Your task to perform on an android device: Go to Amazon Image 0: 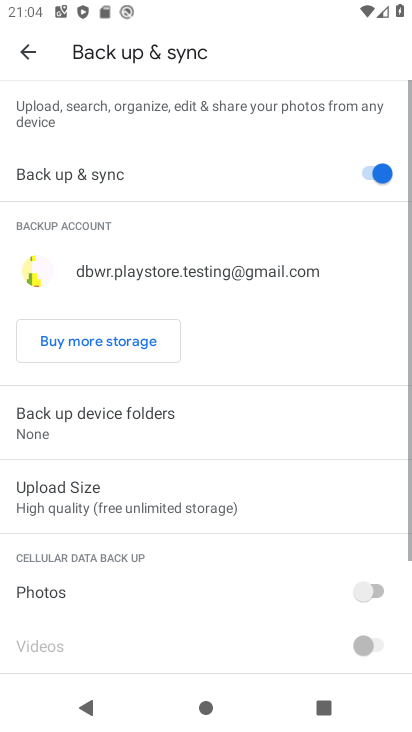
Step 0: press home button
Your task to perform on an android device: Go to Amazon Image 1: 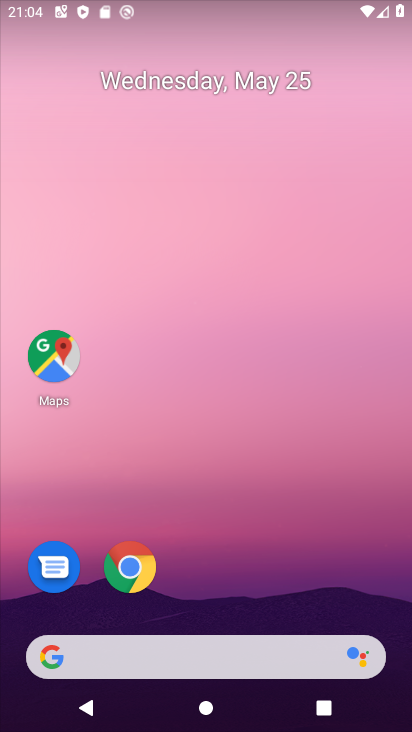
Step 1: click (135, 562)
Your task to perform on an android device: Go to Amazon Image 2: 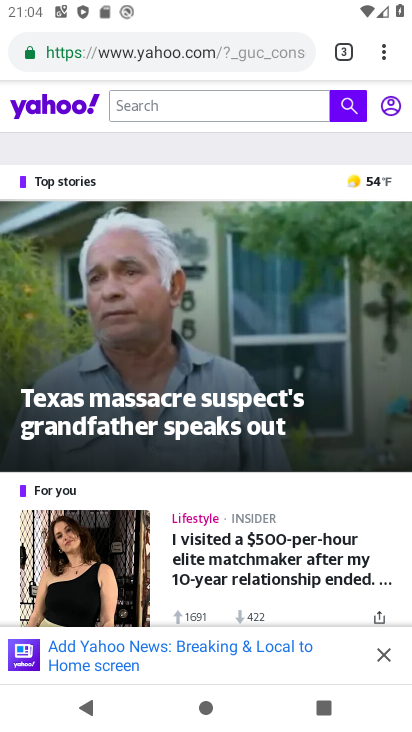
Step 2: press back button
Your task to perform on an android device: Go to Amazon Image 3: 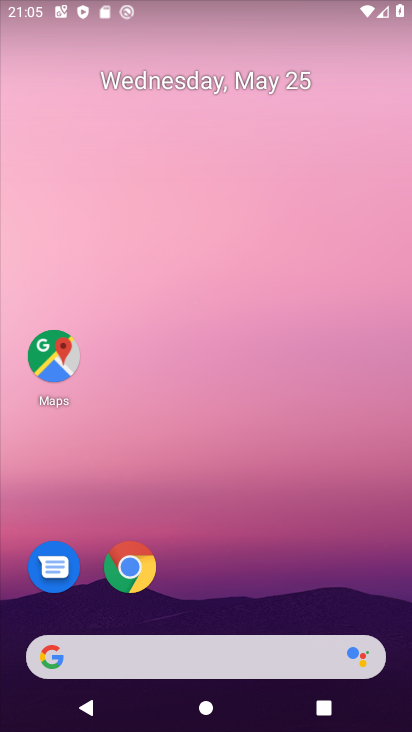
Step 3: click (139, 570)
Your task to perform on an android device: Go to Amazon Image 4: 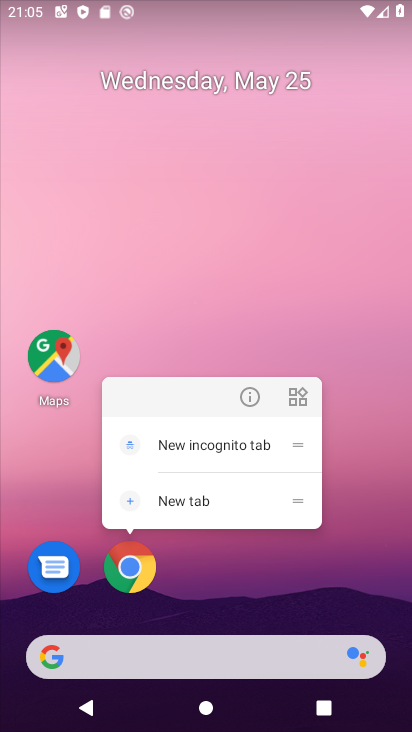
Step 4: click (139, 567)
Your task to perform on an android device: Go to Amazon Image 5: 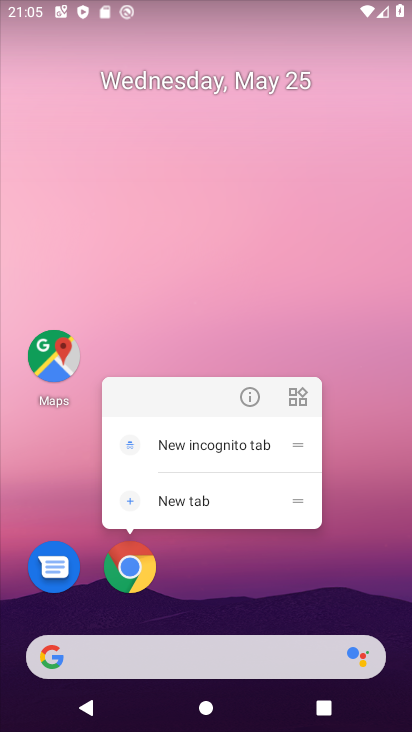
Step 5: click (139, 567)
Your task to perform on an android device: Go to Amazon Image 6: 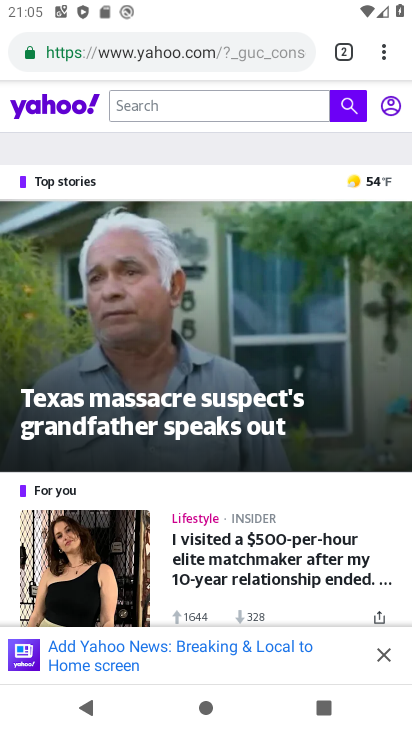
Step 6: click (382, 51)
Your task to perform on an android device: Go to Amazon Image 7: 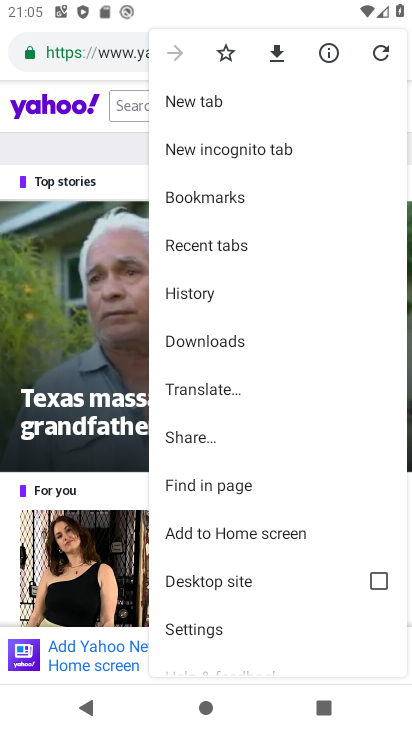
Step 7: click (293, 97)
Your task to perform on an android device: Go to Amazon Image 8: 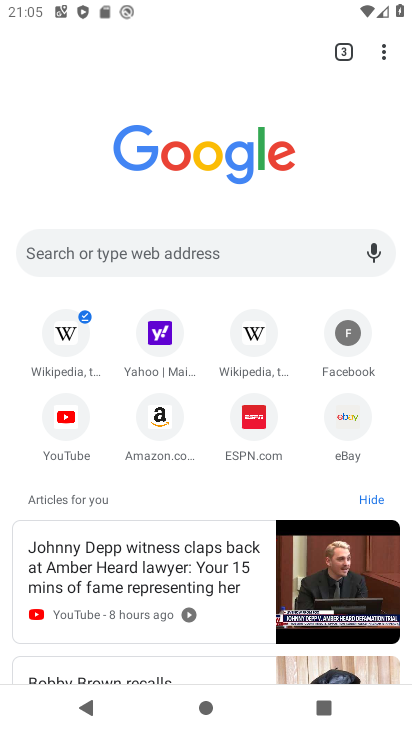
Step 8: click (165, 420)
Your task to perform on an android device: Go to Amazon Image 9: 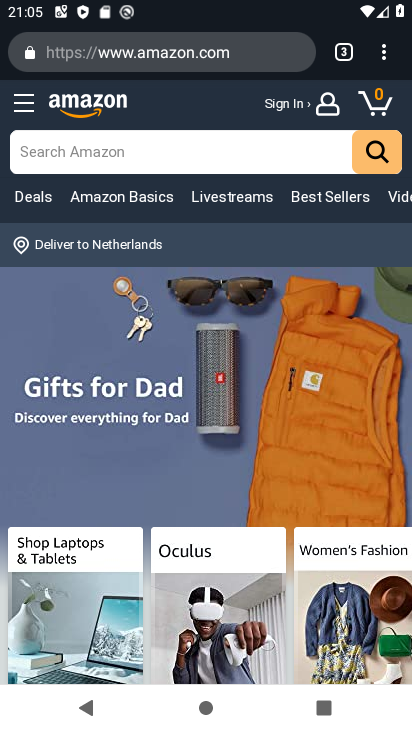
Step 9: task complete